Your task to perform on an android device: Open my contact list Image 0: 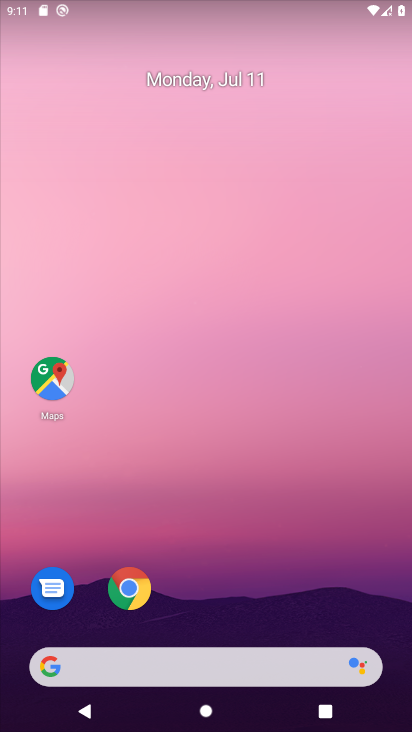
Step 0: drag from (239, 477) to (252, 261)
Your task to perform on an android device: Open my contact list Image 1: 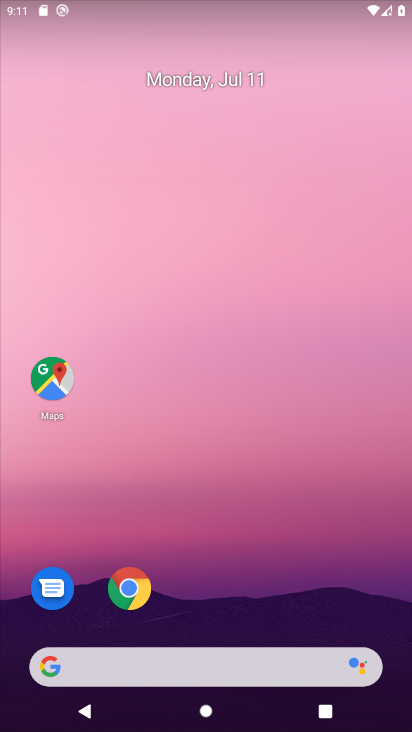
Step 1: drag from (282, 609) to (282, 409)
Your task to perform on an android device: Open my contact list Image 2: 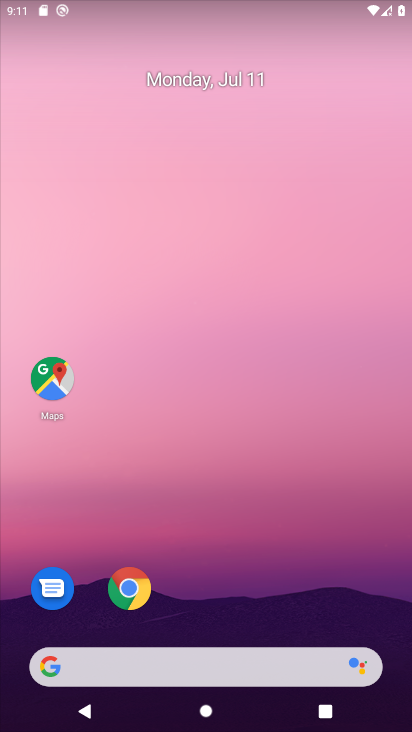
Step 2: drag from (263, 638) to (259, 156)
Your task to perform on an android device: Open my contact list Image 3: 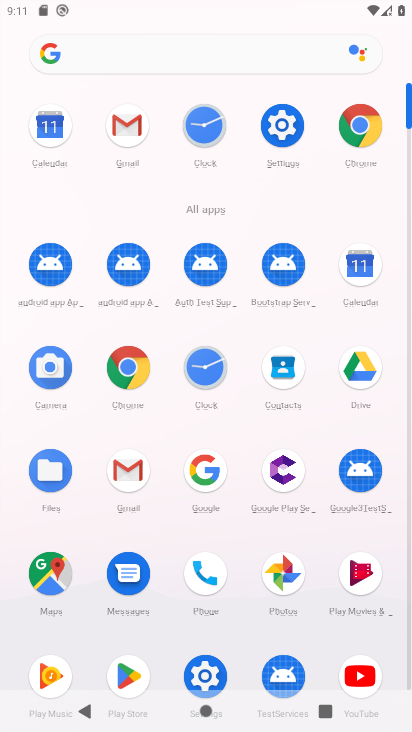
Step 3: click (213, 559)
Your task to perform on an android device: Open my contact list Image 4: 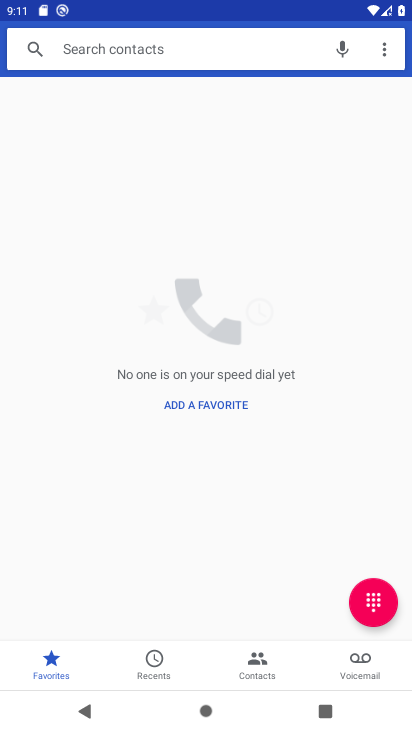
Step 4: click (253, 653)
Your task to perform on an android device: Open my contact list Image 5: 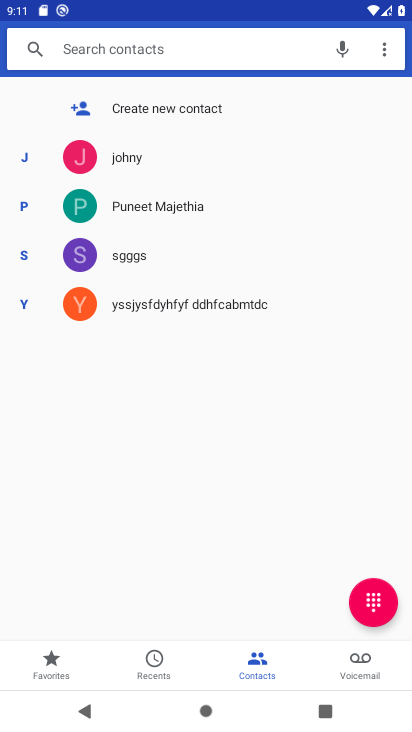
Step 5: task complete